Your task to perform on an android device: Go to wifi settings Image 0: 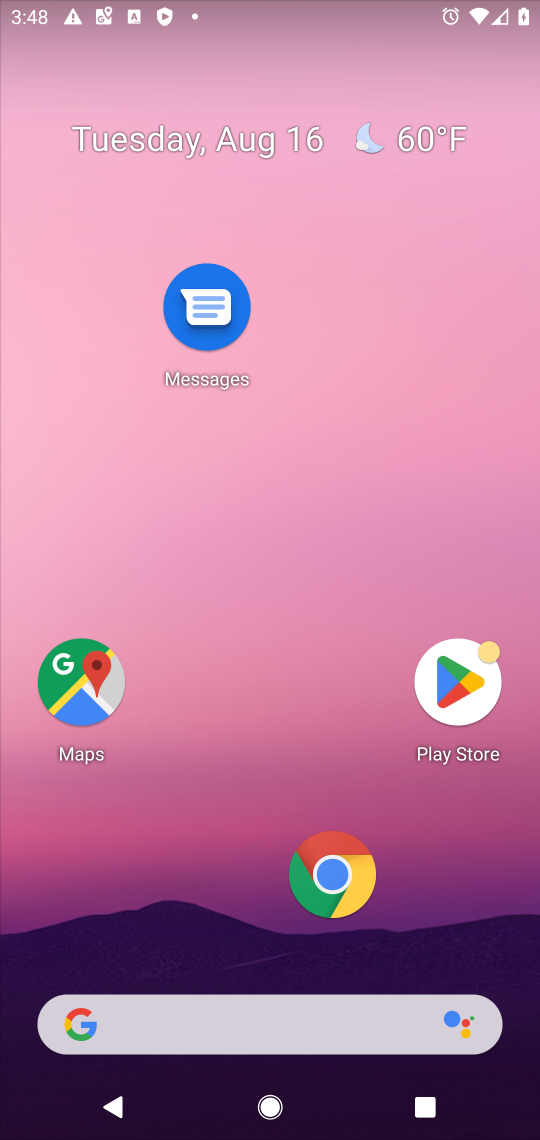
Step 0: drag from (236, 908) to (82, 83)
Your task to perform on an android device: Go to wifi settings Image 1: 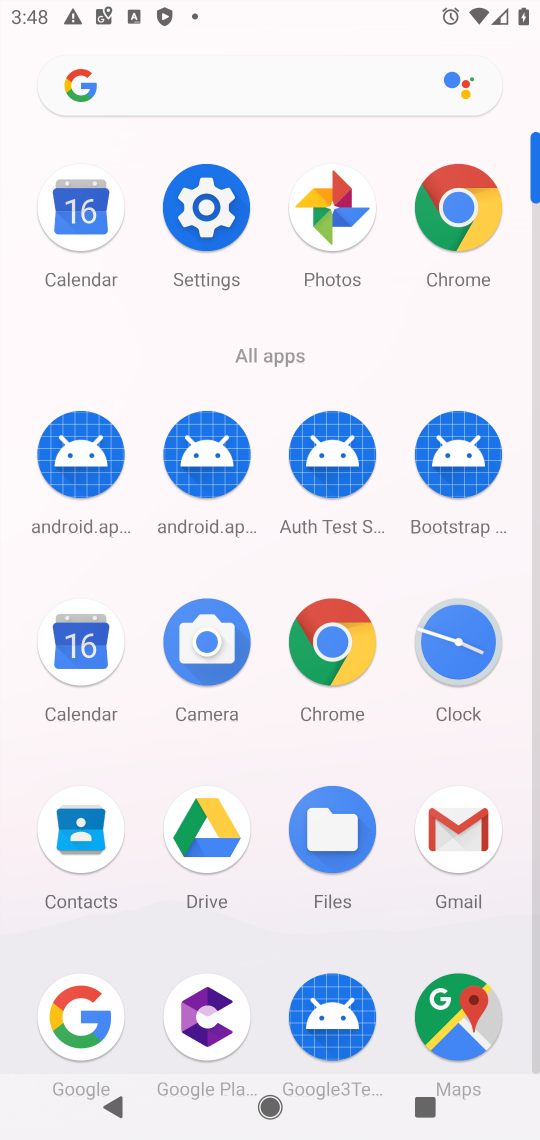
Step 1: click (207, 203)
Your task to perform on an android device: Go to wifi settings Image 2: 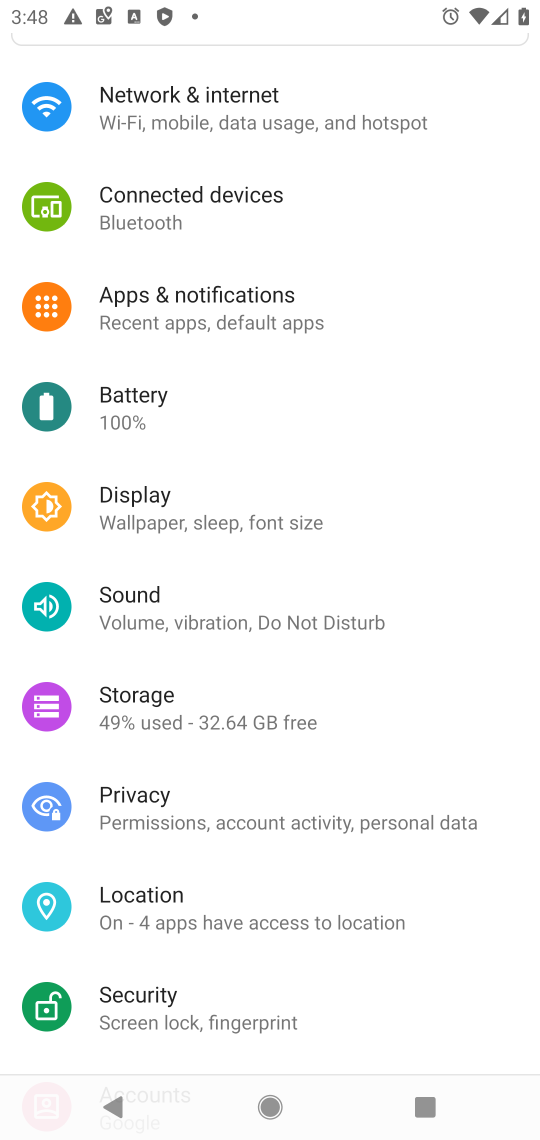
Step 2: click (226, 95)
Your task to perform on an android device: Go to wifi settings Image 3: 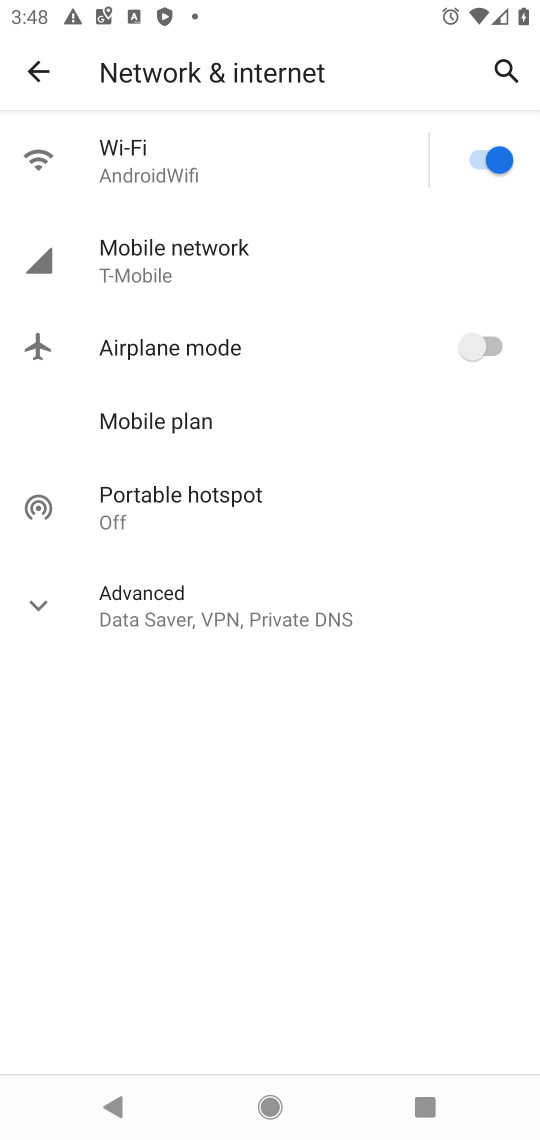
Step 3: click (130, 152)
Your task to perform on an android device: Go to wifi settings Image 4: 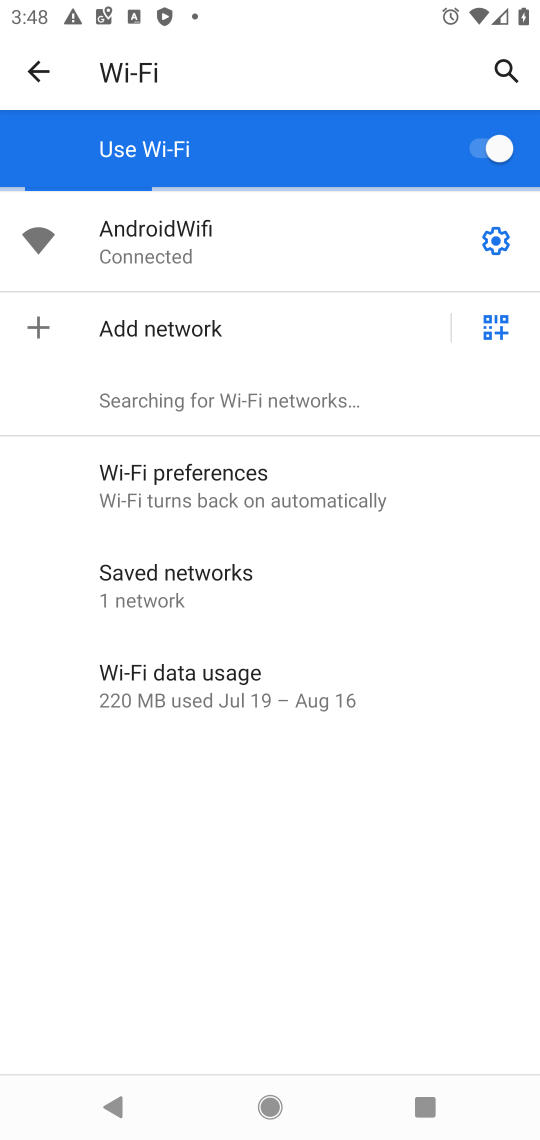
Step 4: task complete